Your task to perform on an android device: What's the latest news in cosmology? Image 0: 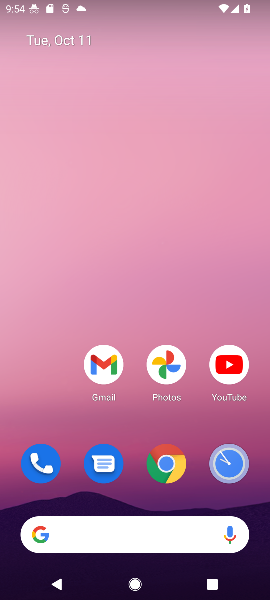
Step 0: click (75, 179)
Your task to perform on an android device: What's the latest news in cosmology? Image 1: 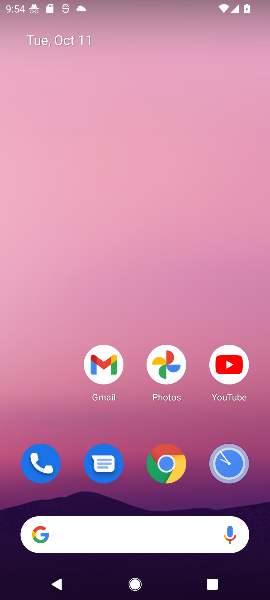
Step 1: drag from (147, 424) to (106, 146)
Your task to perform on an android device: What's the latest news in cosmology? Image 2: 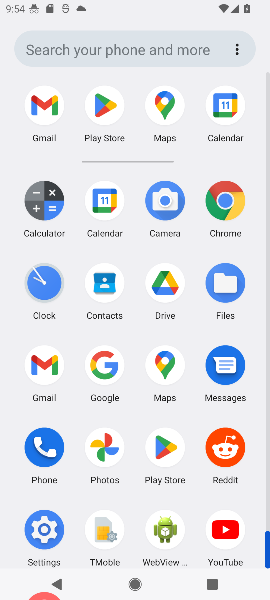
Step 2: click (96, 356)
Your task to perform on an android device: What's the latest news in cosmology? Image 3: 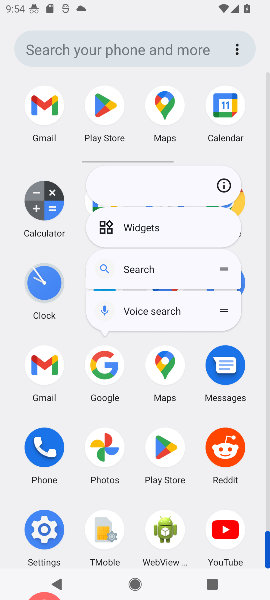
Step 3: click (96, 356)
Your task to perform on an android device: What's the latest news in cosmology? Image 4: 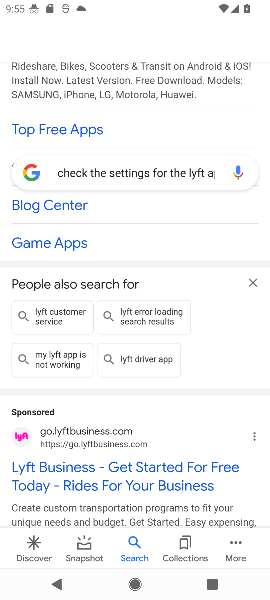
Step 4: click (132, 175)
Your task to perform on an android device: What's the latest news in cosmology? Image 5: 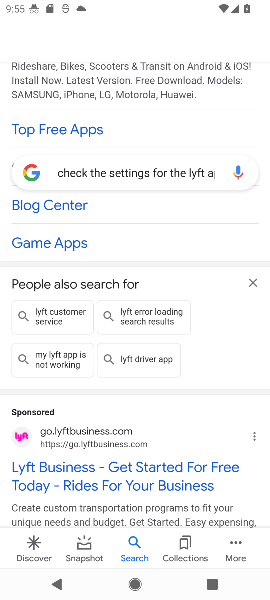
Step 5: click (132, 175)
Your task to perform on an android device: What's the latest news in cosmology? Image 6: 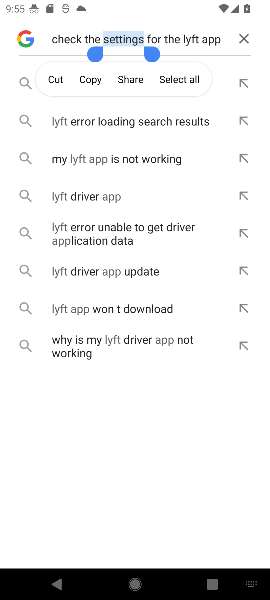
Step 6: click (246, 43)
Your task to perform on an android device: What's the latest news in cosmology? Image 7: 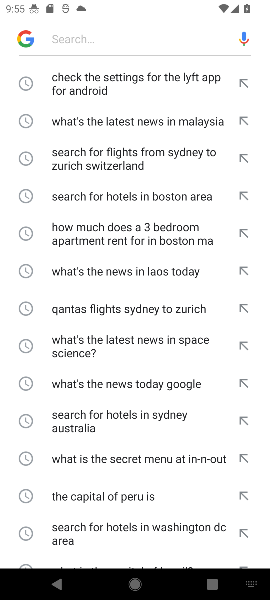
Step 7: click (156, 27)
Your task to perform on an android device: What's the latest news in cosmology? Image 8: 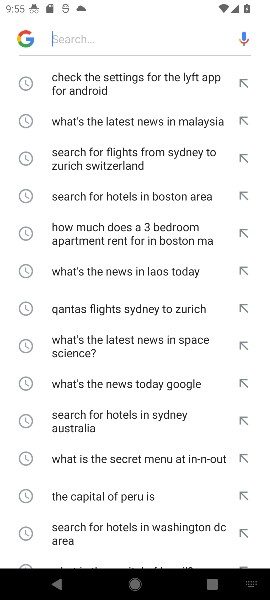
Step 8: type "What's the latest news in cosmology? "
Your task to perform on an android device: What's the latest news in cosmology? Image 9: 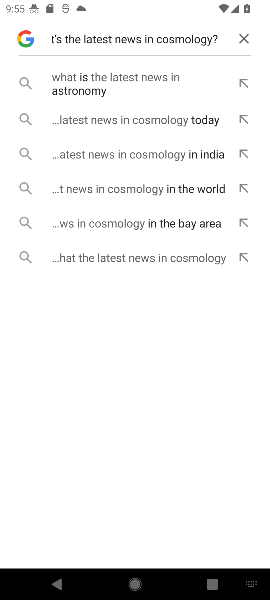
Step 9: click (160, 121)
Your task to perform on an android device: What's the latest news in cosmology? Image 10: 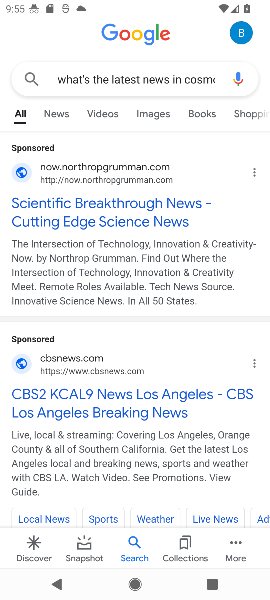
Step 10: click (141, 195)
Your task to perform on an android device: What's the latest news in cosmology? Image 11: 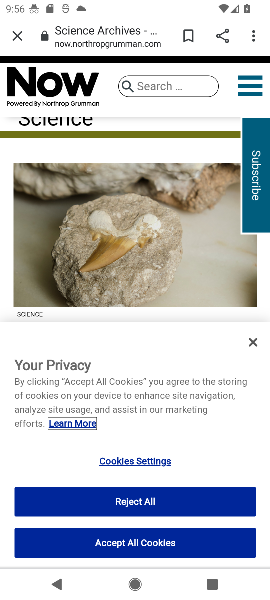
Step 11: task complete